Your task to perform on an android device: uninstall "Messenger Lite" Image 0: 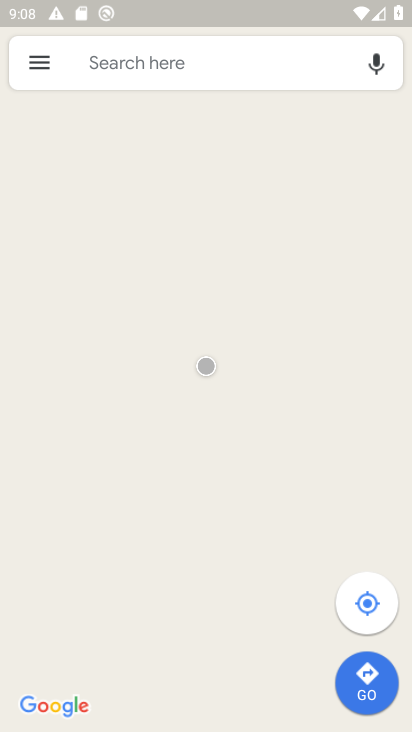
Step 0: press home button
Your task to perform on an android device: uninstall "Messenger Lite" Image 1: 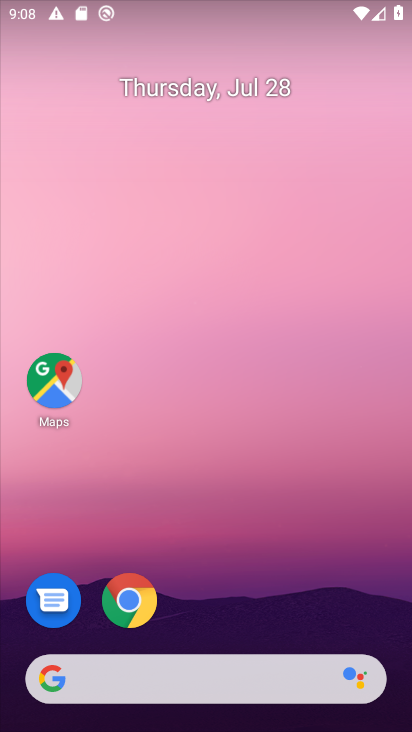
Step 1: drag from (269, 629) to (287, 27)
Your task to perform on an android device: uninstall "Messenger Lite" Image 2: 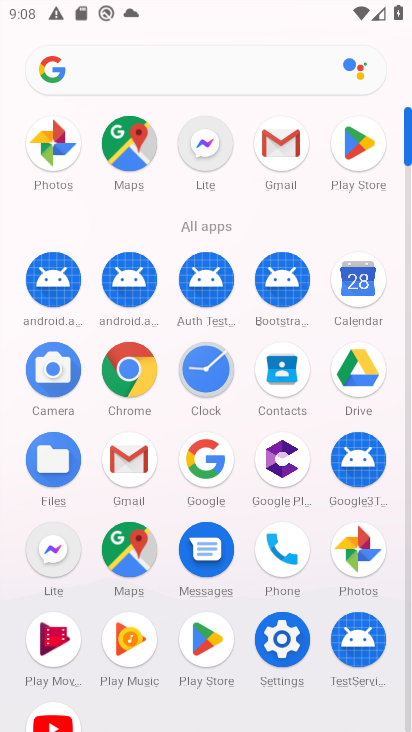
Step 2: click (351, 155)
Your task to perform on an android device: uninstall "Messenger Lite" Image 3: 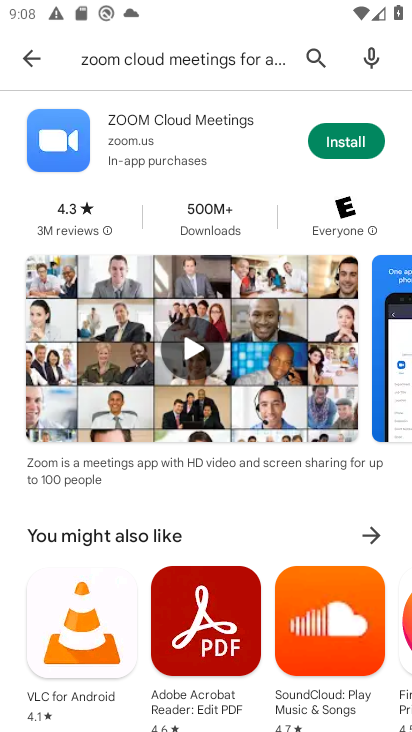
Step 3: click (306, 59)
Your task to perform on an android device: uninstall "Messenger Lite" Image 4: 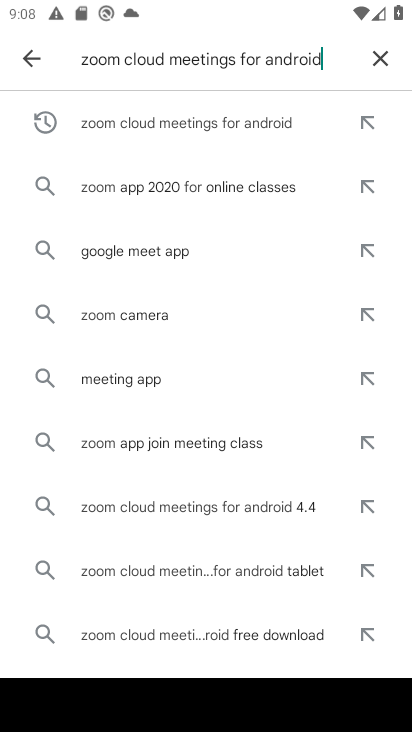
Step 4: click (384, 65)
Your task to perform on an android device: uninstall "Messenger Lite" Image 5: 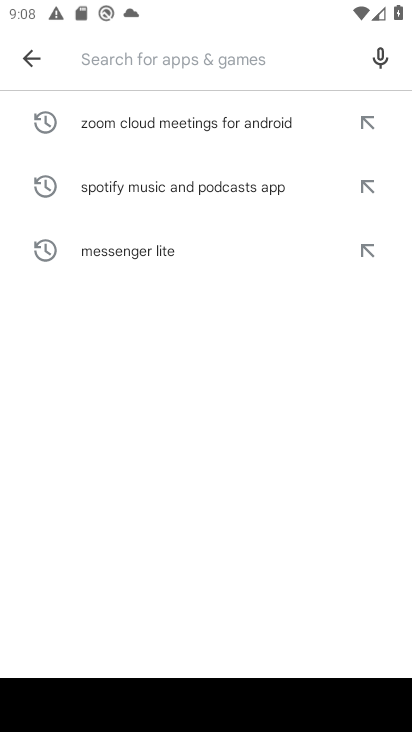
Step 5: click (216, 59)
Your task to perform on an android device: uninstall "Messenger Lite" Image 6: 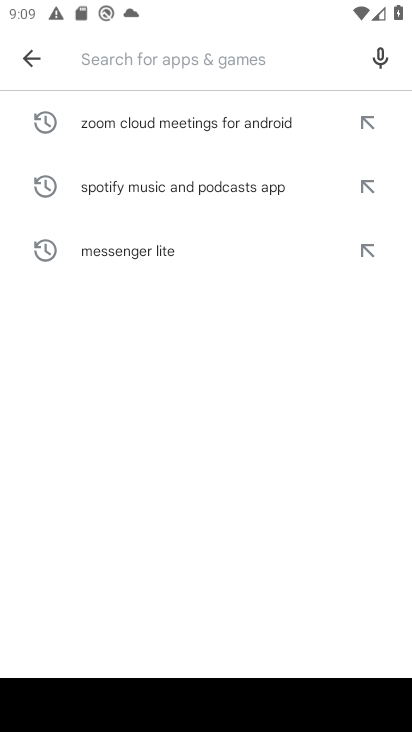
Step 6: type "Messenger Lite"
Your task to perform on an android device: uninstall "Messenger Lite" Image 7: 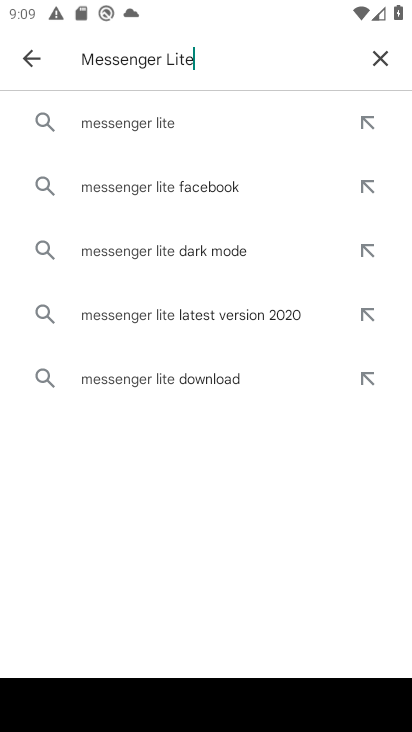
Step 7: click (79, 126)
Your task to perform on an android device: uninstall "Messenger Lite" Image 8: 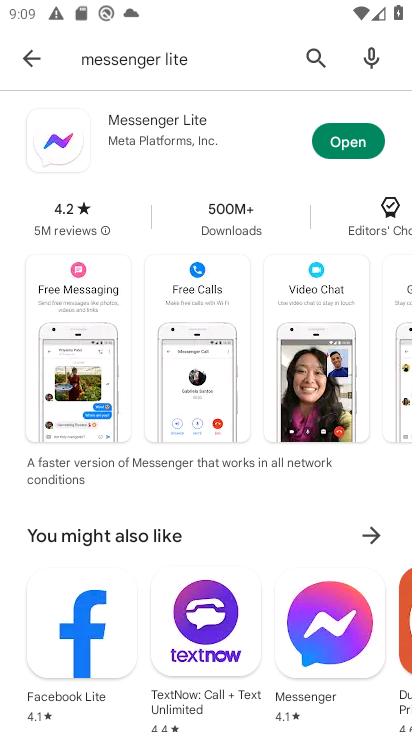
Step 8: click (339, 150)
Your task to perform on an android device: uninstall "Messenger Lite" Image 9: 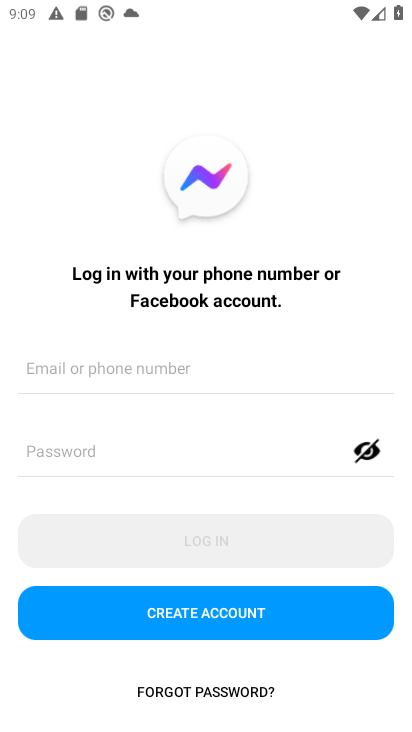
Step 9: press home button
Your task to perform on an android device: uninstall "Messenger Lite" Image 10: 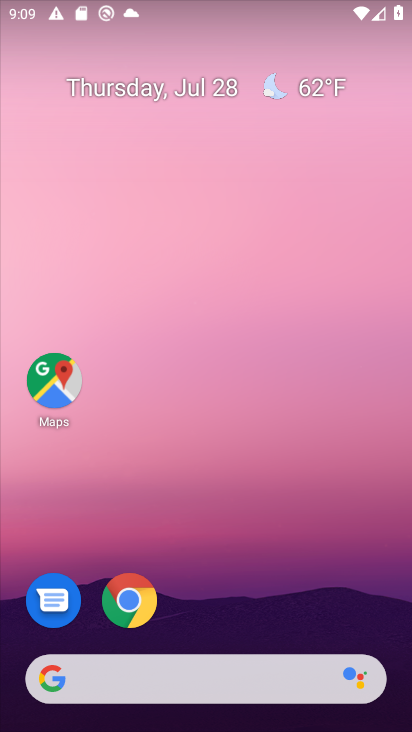
Step 10: drag from (218, 454) to (268, 12)
Your task to perform on an android device: uninstall "Messenger Lite" Image 11: 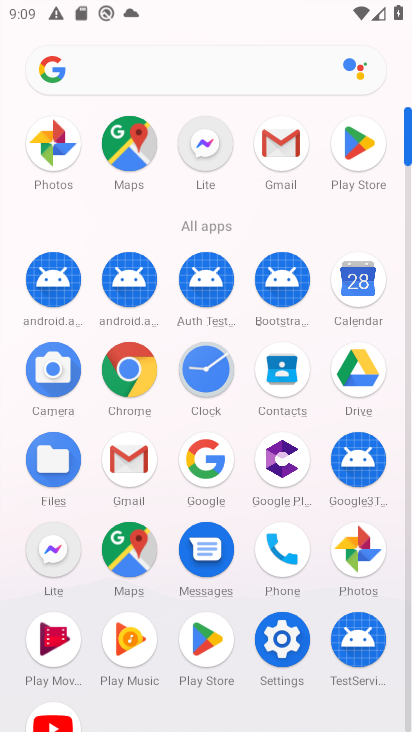
Step 11: click (204, 160)
Your task to perform on an android device: uninstall "Messenger Lite" Image 12: 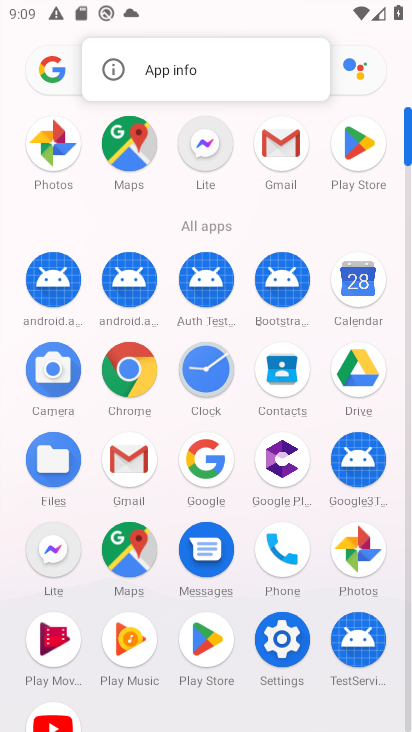
Step 12: click (179, 77)
Your task to perform on an android device: uninstall "Messenger Lite" Image 13: 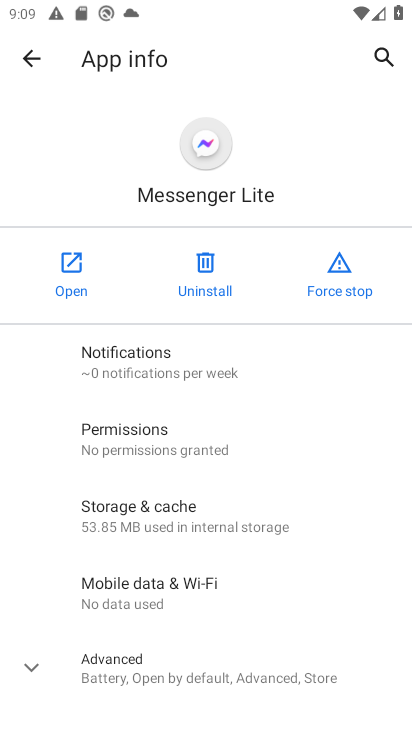
Step 13: click (203, 287)
Your task to perform on an android device: uninstall "Messenger Lite" Image 14: 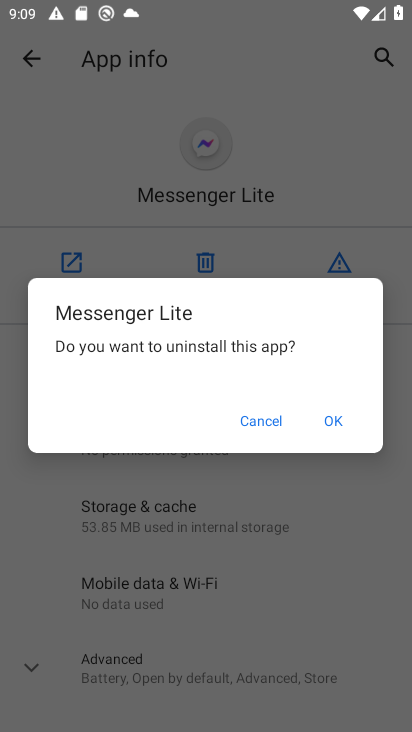
Step 14: click (341, 425)
Your task to perform on an android device: uninstall "Messenger Lite" Image 15: 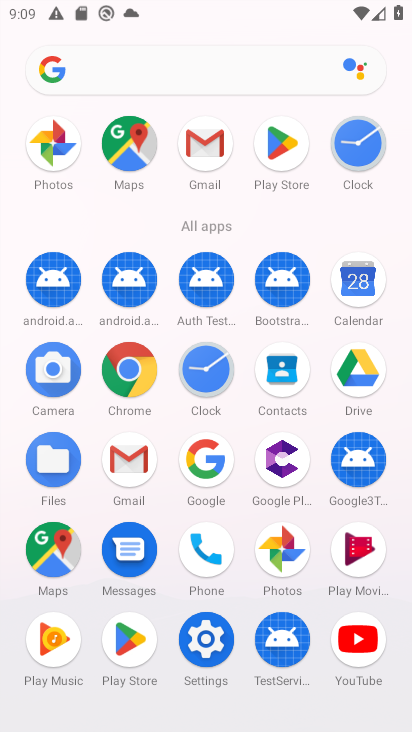
Step 15: task complete